Your task to perform on an android device: Open Maps and search for coffee Image 0: 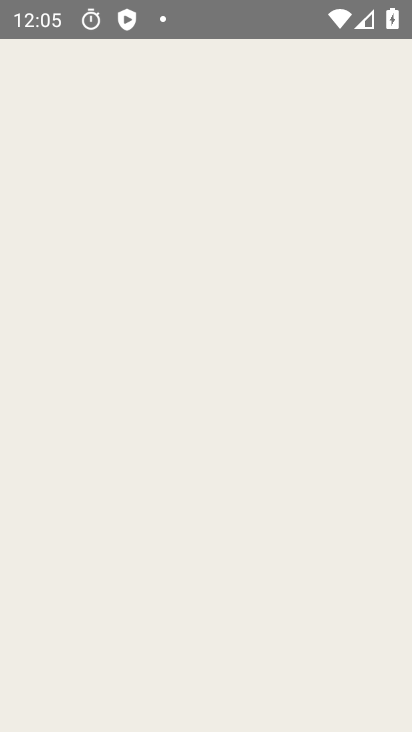
Step 0: press home button
Your task to perform on an android device: Open Maps and search for coffee Image 1: 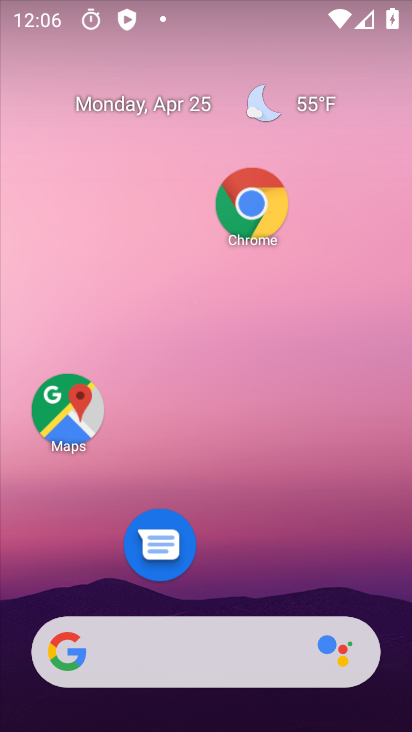
Step 1: drag from (256, 693) to (354, 150)
Your task to perform on an android device: Open Maps and search for coffee Image 2: 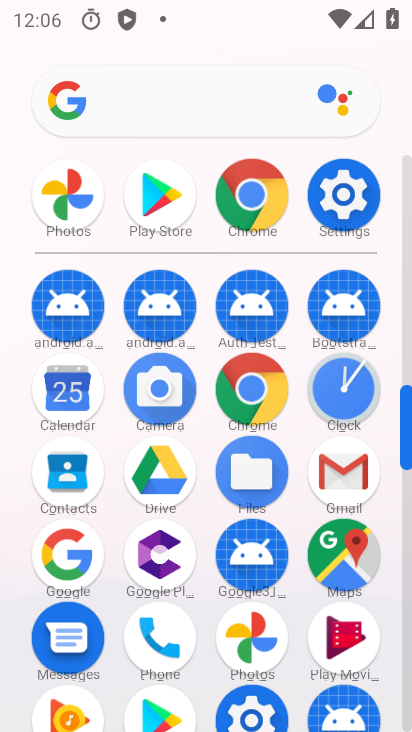
Step 2: click (353, 540)
Your task to perform on an android device: Open Maps and search for coffee Image 3: 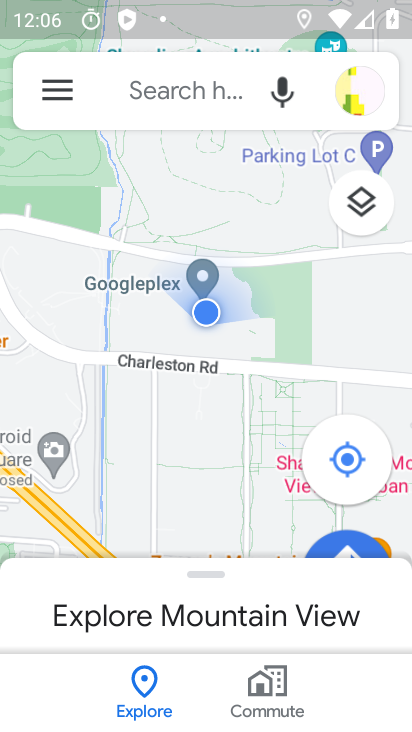
Step 3: click (188, 80)
Your task to perform on an android device: Open Maps and search for coffee Image 4: 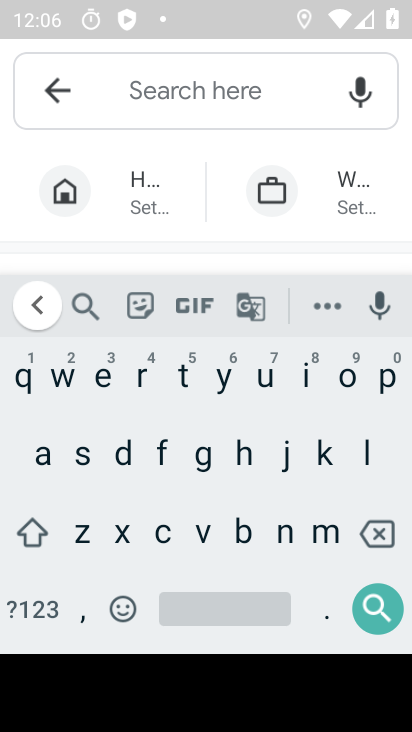
Step 4: click (167, 527)
Your task to perform on an android device: Open Maps and search for coffee Image 5: 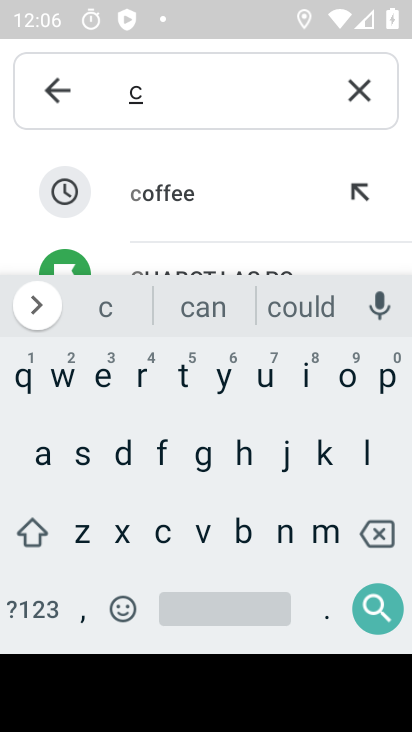
Step 5: click (186, 187)
Your task to perform on an android device: Open Maps and search for coffee Image 6: 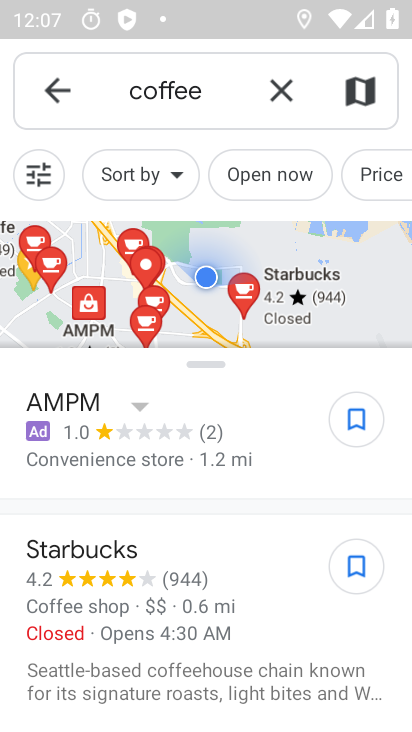
Step 6: click (116, 270)
Your task to perform on an android device: Open Maps and search for coffee Image 7: 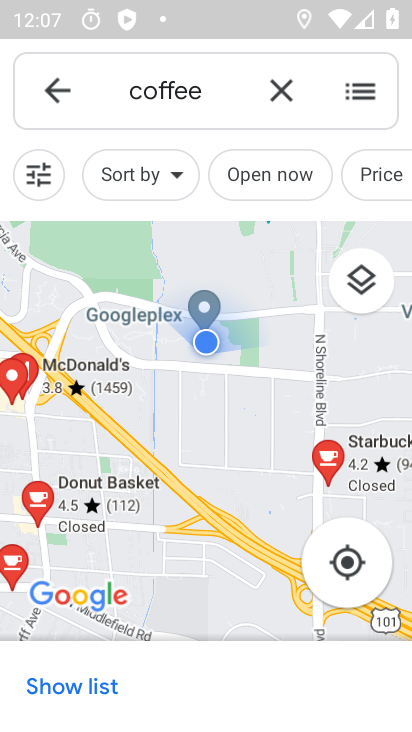
Step 7: task complete